Your task to perform on an android device: delete the emails in spam in the gmail app Image 0: 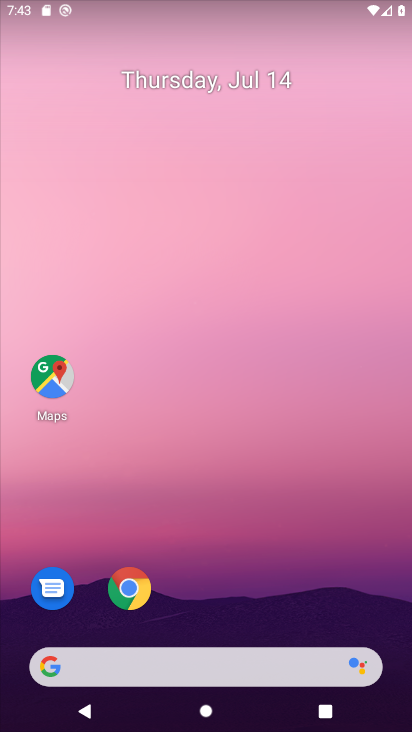
Step 0: drag from (348, 608) to (367, 144)
Your task to perform on an android device: delete the emails in spam in the gmail app Image 1: 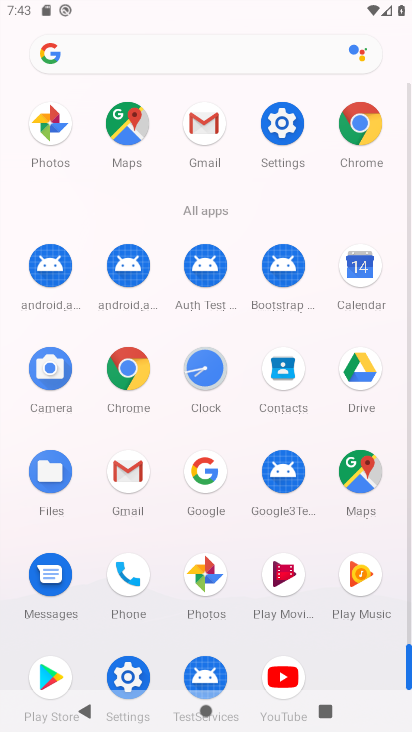
Step 1: click (128, 473)
Your task to perform on an android device: delete the emails in spam in the gmail app Image 2: 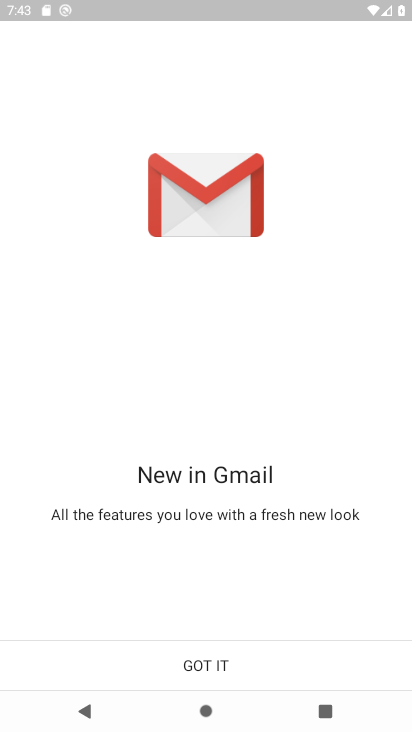
Step 2: click (190, 659)
Your task to perform on an android device: delete the emails in spam in the gmail app Image 3: 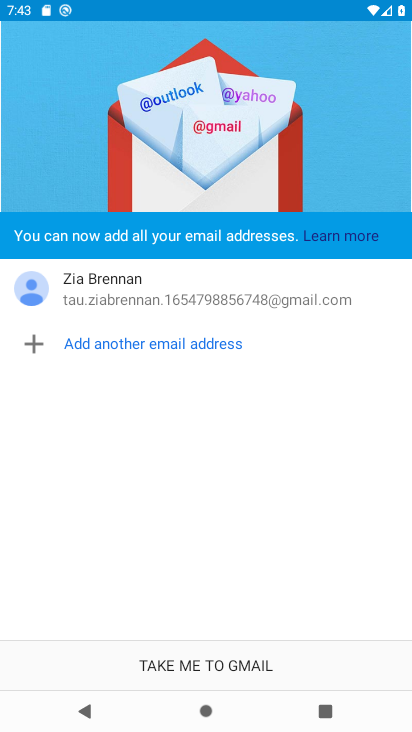
Step 3: click (190, 659)
Your task to perform on an android device: delete the emails in spam in the gmail app Image 4: 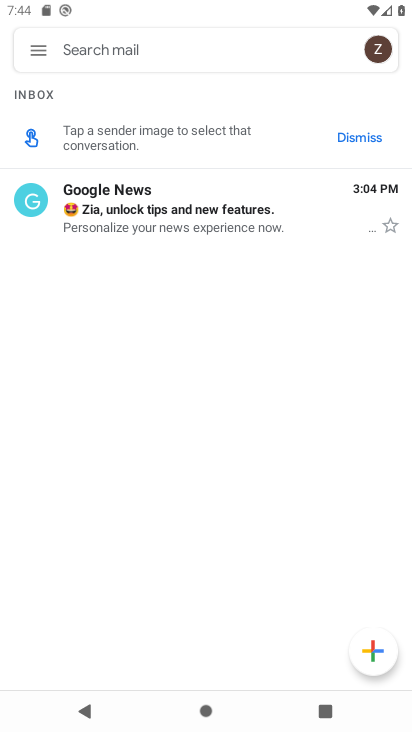
Step 4: click (40, 47)
Your task to perform on an android device: delete the emails in spam in the gmail app Image 5: 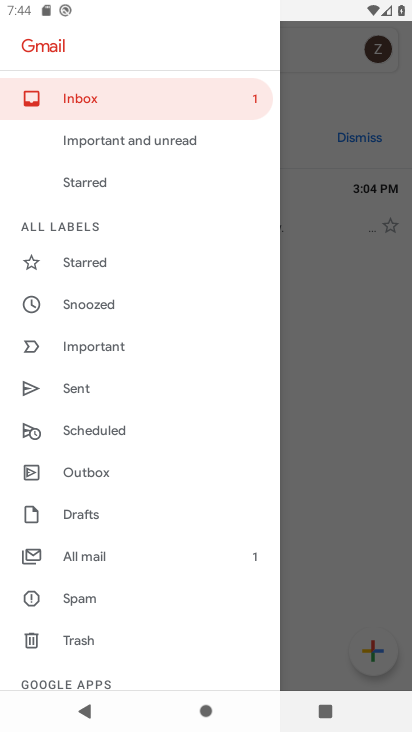
Step 5: drag from (184, 353) to (197, 287)
Your task to perform on an android device: delete the emails in spam in the gmail app Image 6: 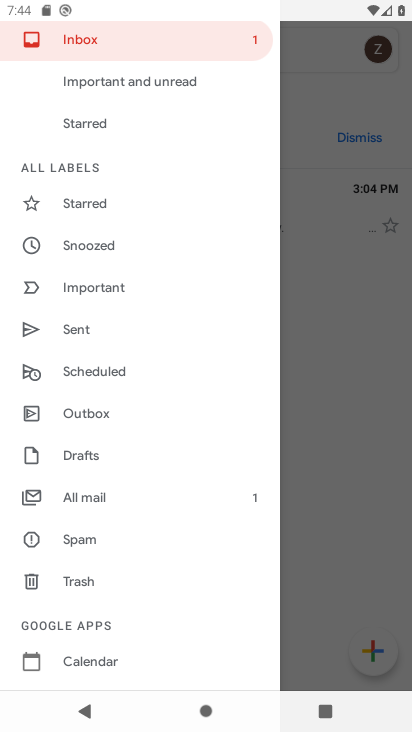
Step 6: drag from (217, 407) to (226, 324)
Your task to perform on an android device: delete the emails in spam in the gmail app Image 7: 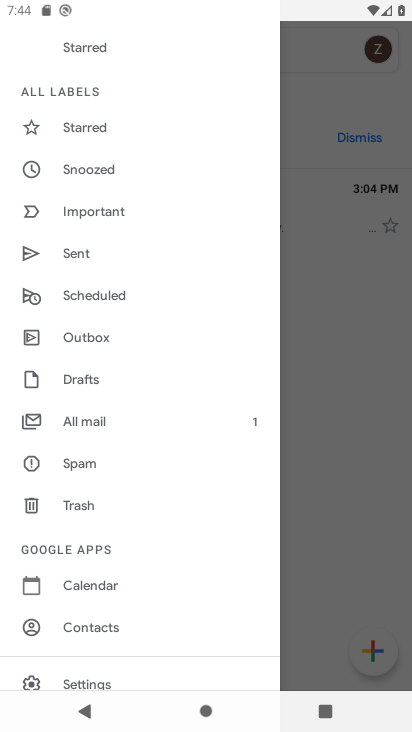
Step 7: drag from (205, 410) to (196, 284)
Your task to perform on an android device: delete the emails in spam in the gmail app Image 8: 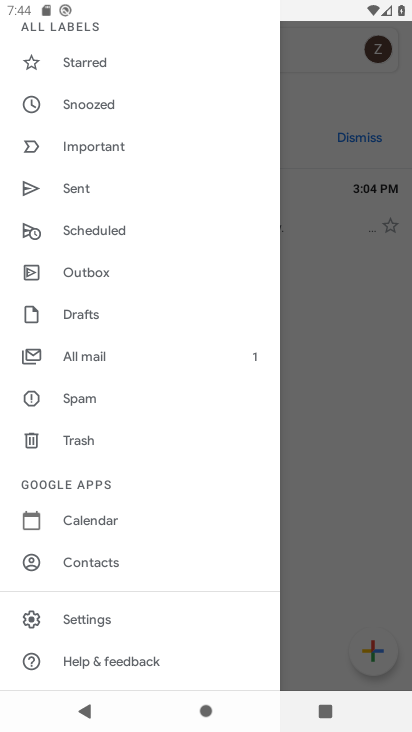
Step 8: click (97, 403)
Your task to perform on an android device: delete the emails in spam in the gmail app Image 9: 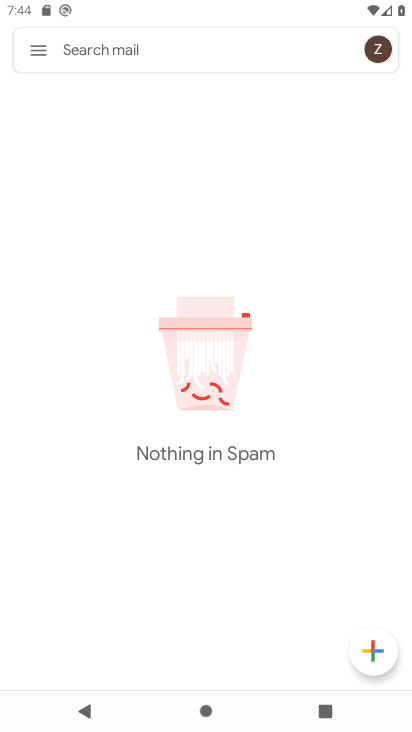
Step 9: task complete